Your task to perform on an android device: see creations saved in the google photos Image 0: 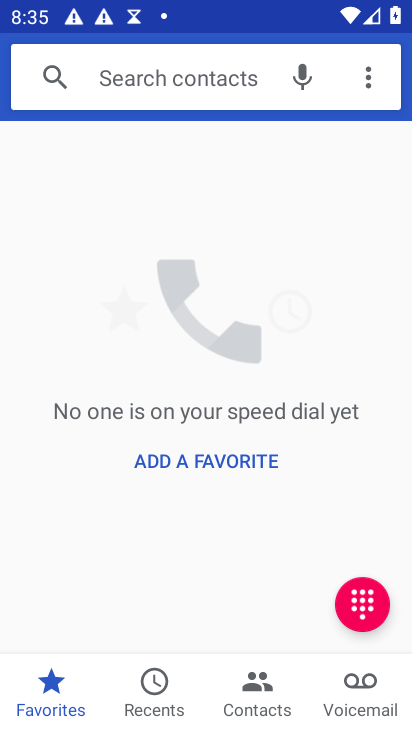
Step 0: press home button
Your task to perform on an android device: see creations saved in the google photos Image 1: 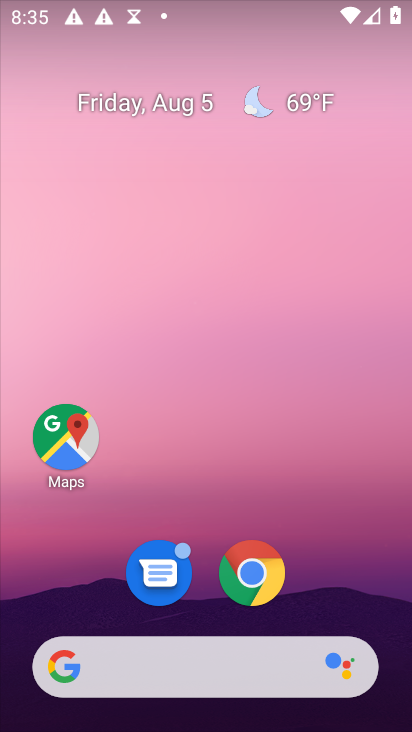
Step 1: drag from (168, 681) to (294, 20)
Your task to perform on an android device: see creations saved in the google photos Image 2: 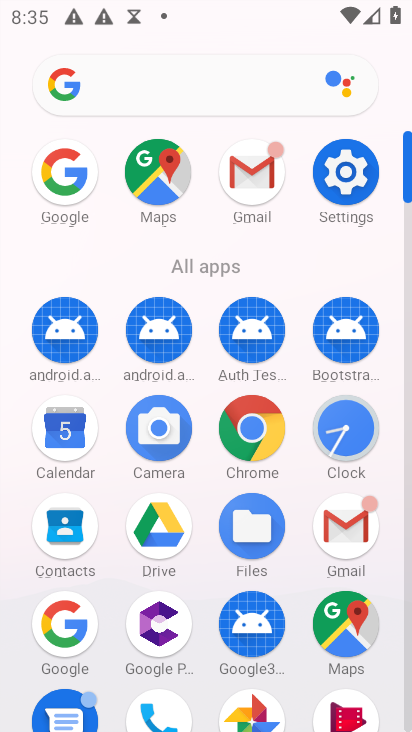
Step 2: click (256, 721)
Your task to perform on an android device: see creations saved in the google photos Image 3: 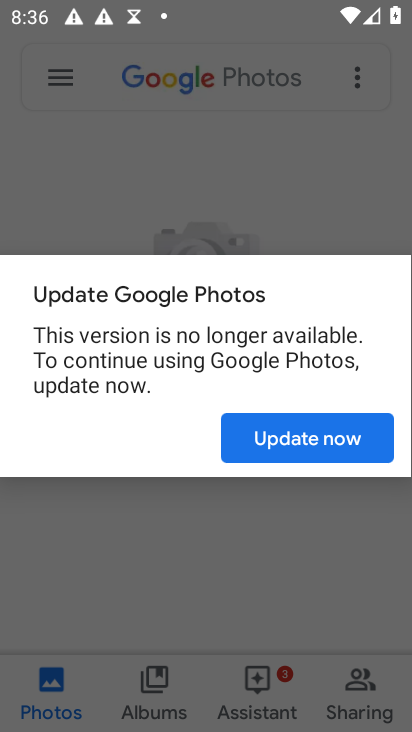
Step 3: click (284, 443)
Your task to perform on an android device: see creations saved in the google photos Image 4: 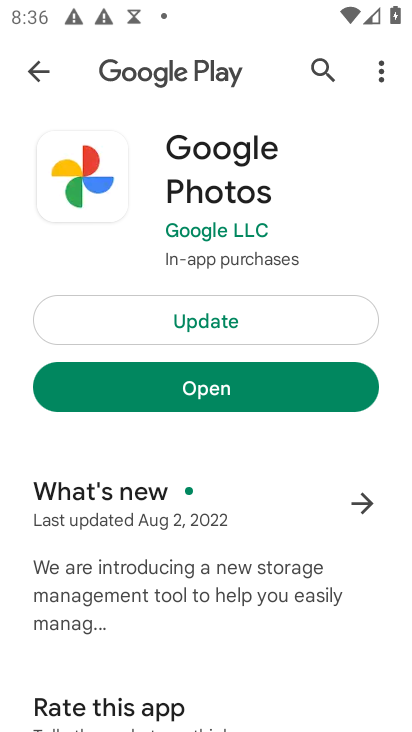
Step 4: click (214, 325)
Your task to perform on an android device: see creations saved in the google photos Image 5: 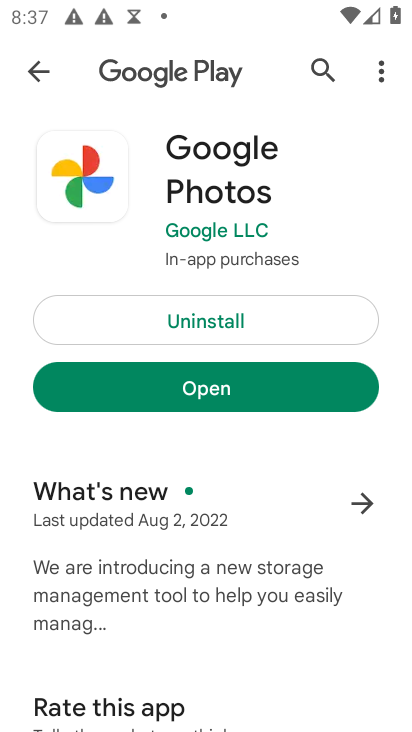
Step 5: click (217, 390)
Your task to perform on an android device: see creations saved in the google photos Image 6: 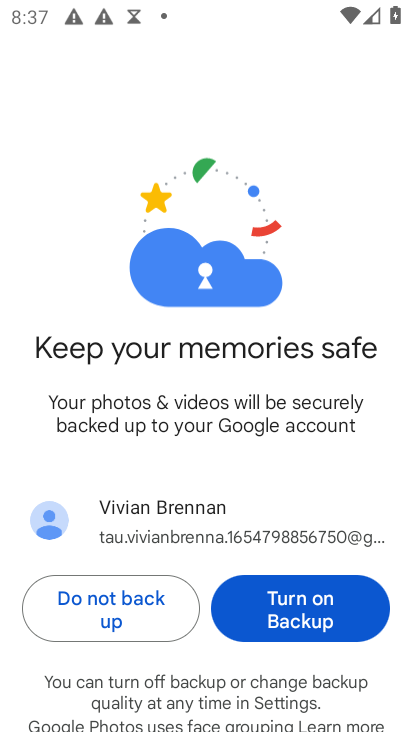
Step 6: click (270, 599)
Your task to perform on an android device: see creations saved in the google photos Image 7: 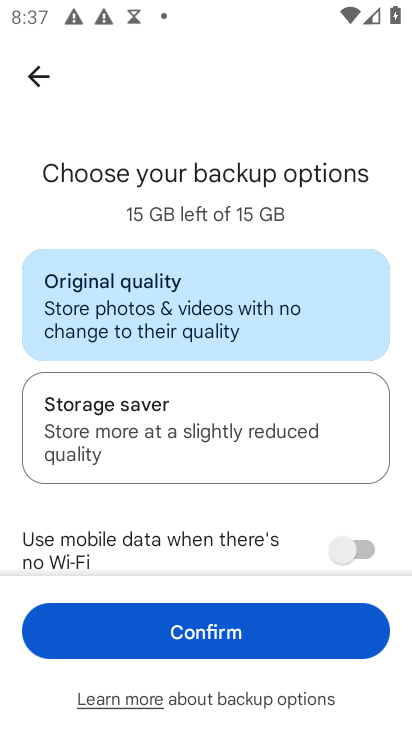
Step 7: click (362, 553)
Your task to perform on an android device: see creations saved in the google photos Image 8: 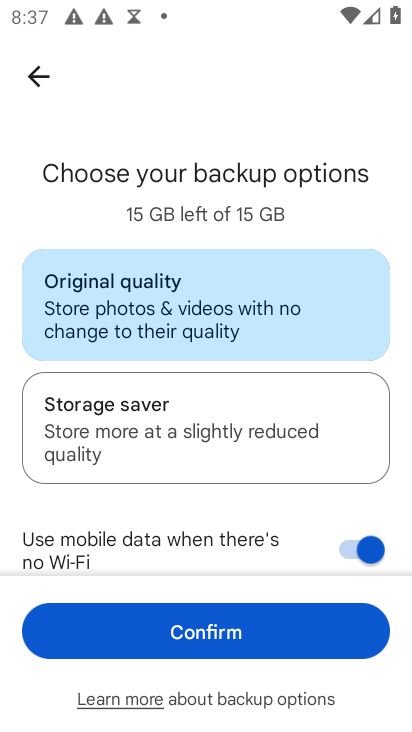
Step 8: click (256, 640)
Your task to perform on an android device: see creations saved in the google photos Image 9: 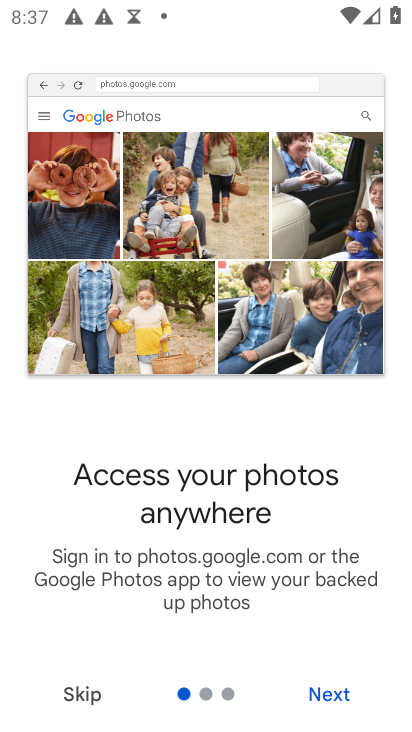
Step 9: click (91, 696)
Your task to perform on an android device: see creations saved in the google photos Image 10: 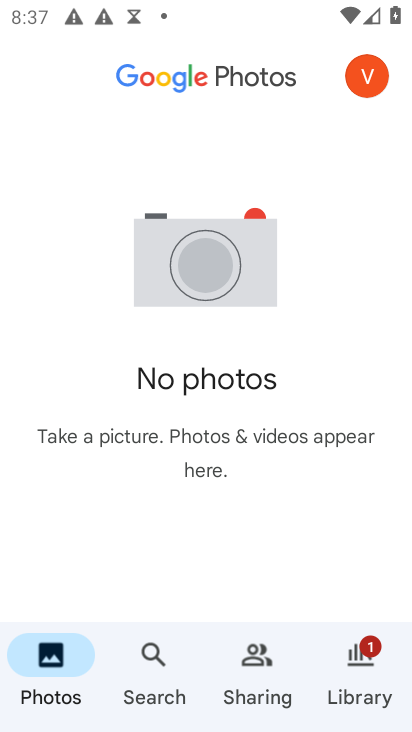
Step 10: click (365, 644)
Your task to perform on an android device: see creations saved in the google photos Image 11: 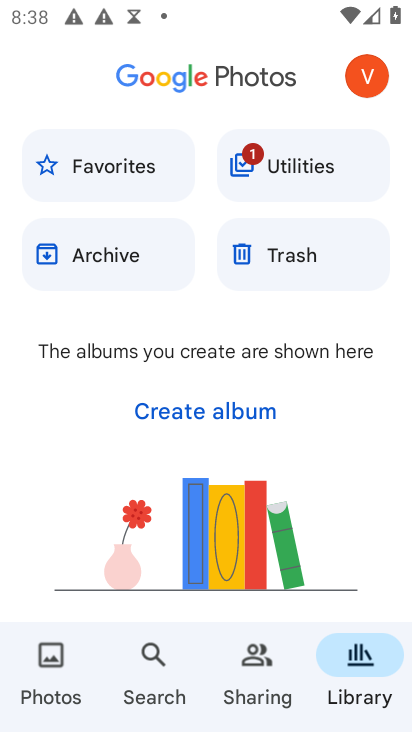
Step 11: click (297, 170)
Your task to perform on an android device: see creations saved in the google photos Image 12: 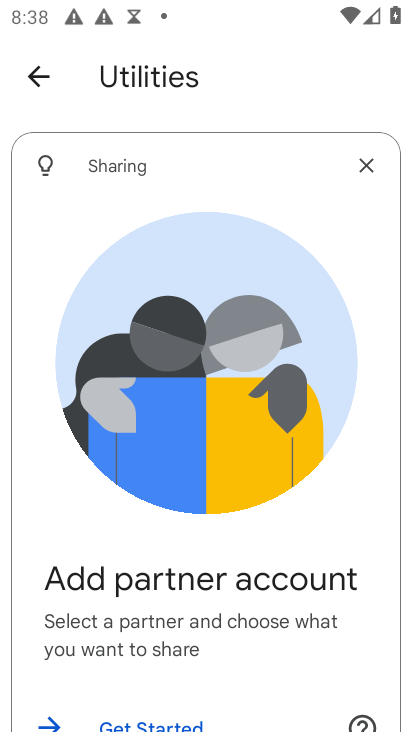
Step 12: press back button
Your task to perform on an android device: see creations saved in the google photos Image 13: 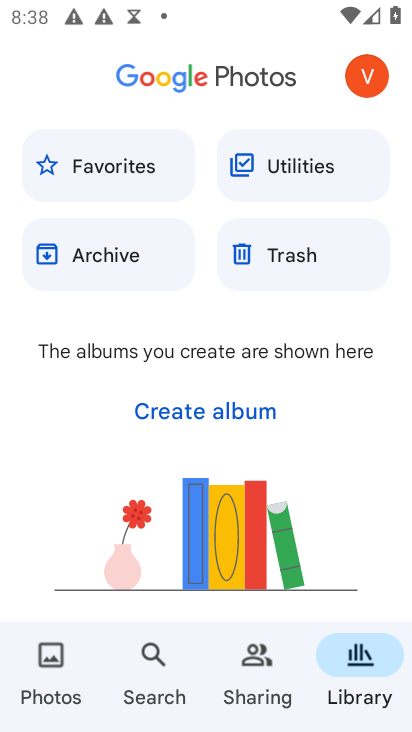
Step 13: click (59, 671)
Your task to perform on an android device: see creations saved in the google photos Image 14: 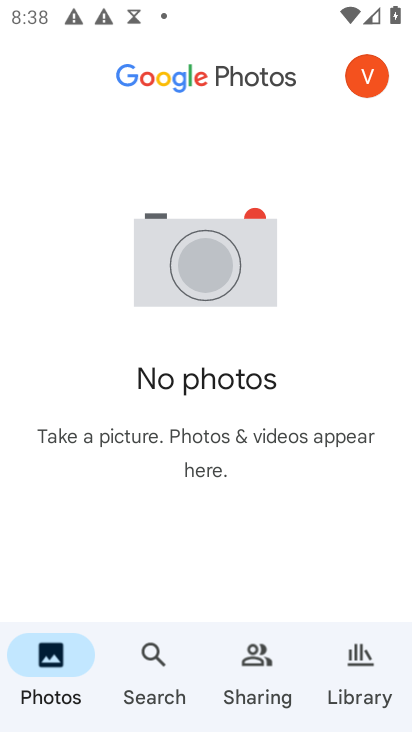
Step 14: task complete